Your task to perform on an android device: Go to calendar. Show me events next week Image 0: 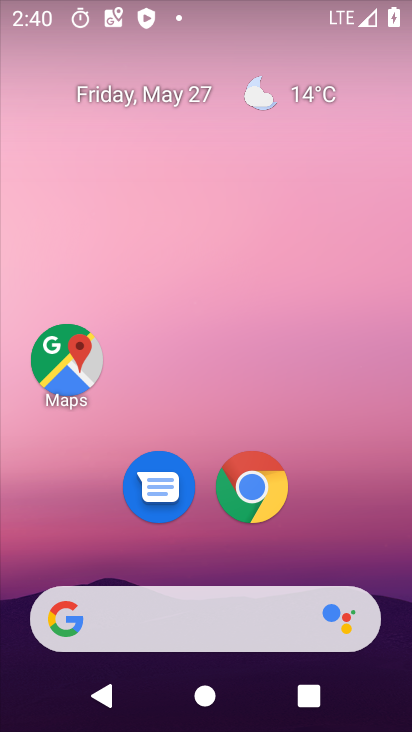
Step 0: drag from (346, 480) to (304, 76)
Your task to perform on an android device: Go to calendar. Show me events next week Image 1: 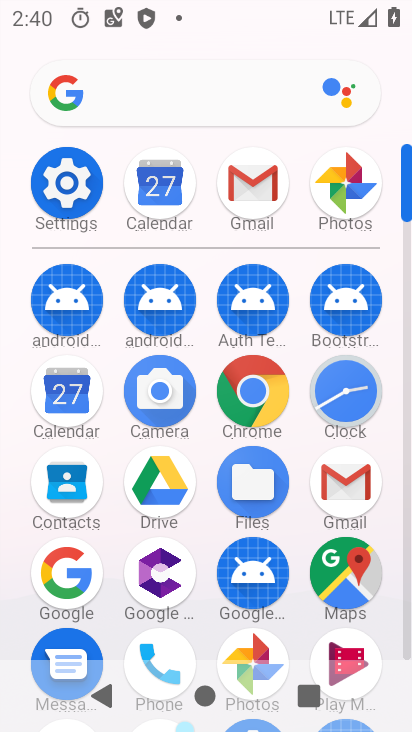
Step 1: click (77, 403)
Your task to perform on an android device: Go to calendar. Show me events next week Image 2: 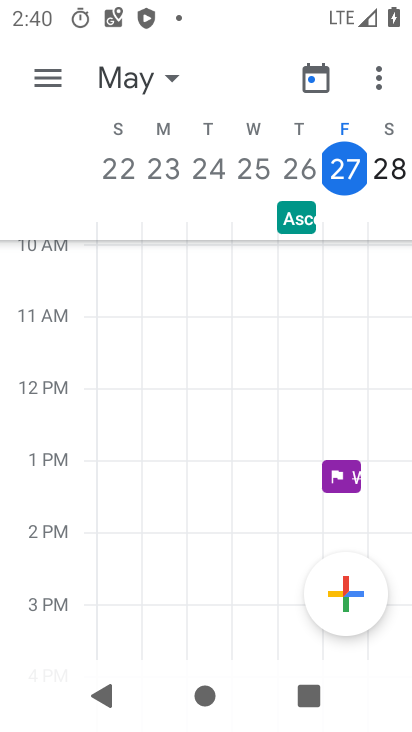
Step 2: click (170, 82)
Your task to perform on an android device: Go to calendar. Show me events next week Image 3: 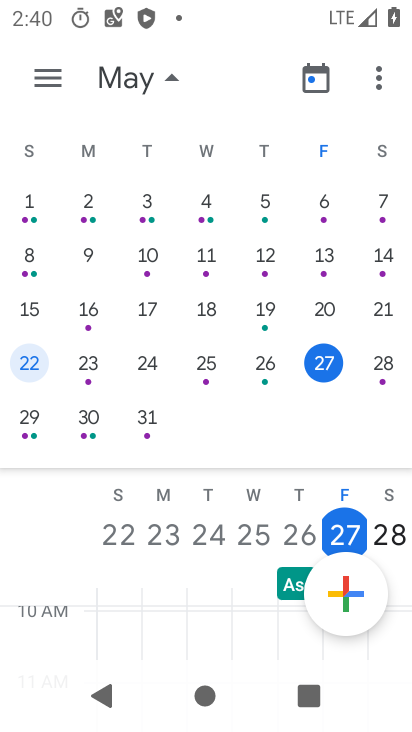
Step 3: click (158, 422)
Your task to perform on an android device: Go to calendar. Show me events next week Image 4: 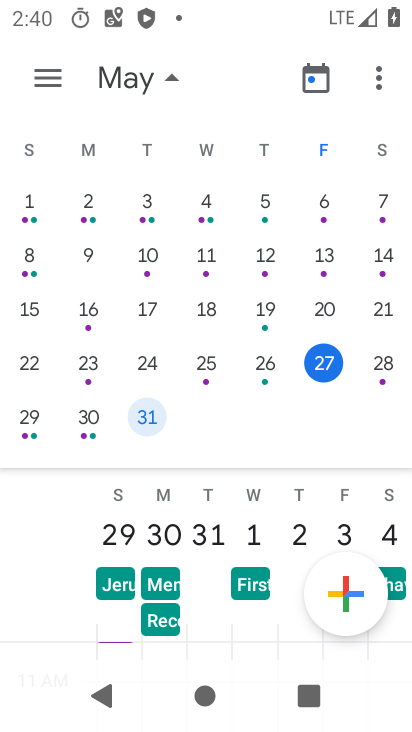
Step 4: task complete